Your task to perform on an android device: install app "Adobe Express: Graphic Design" Image 0: 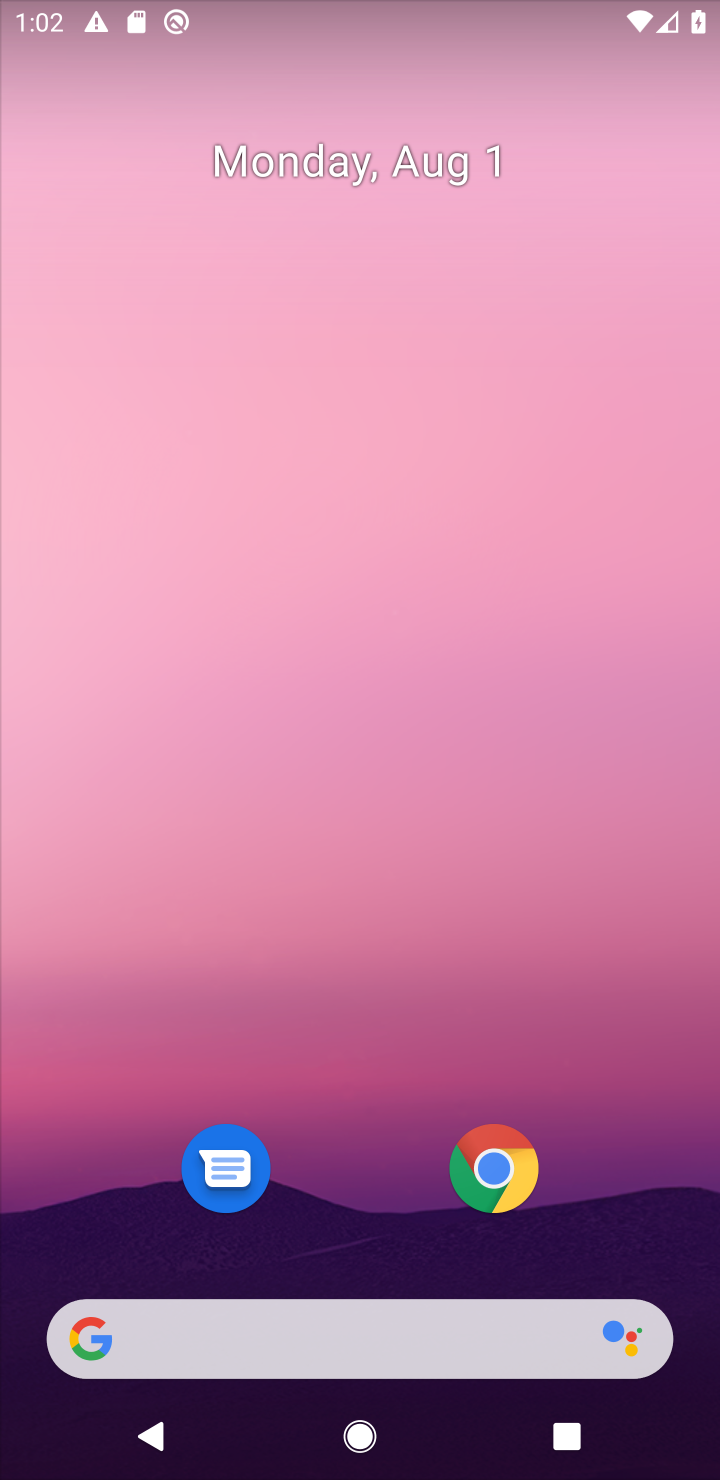
Step 0: drag from (376, 1225) to (259, 201)
Your task to perform on an android device: install app "Adobe Express: Graphic Design" Image 1: 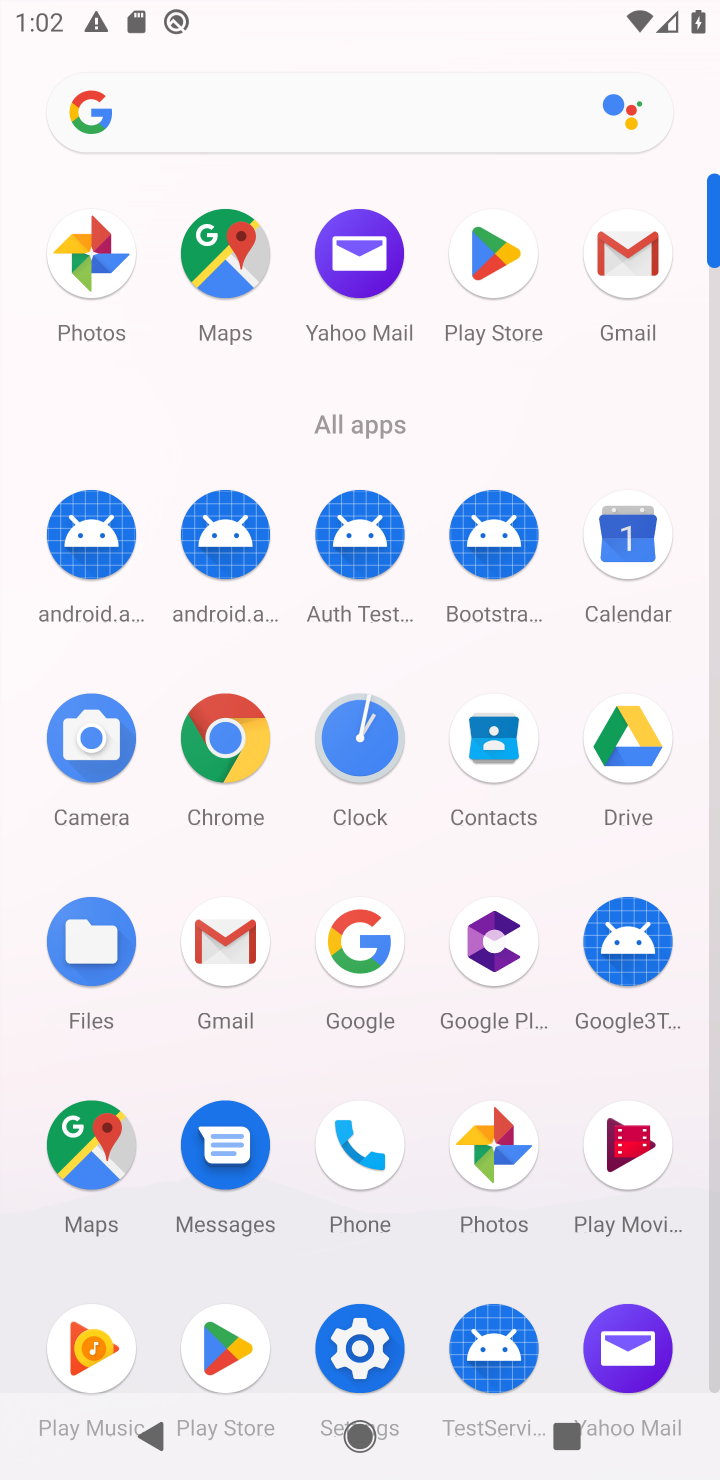
Step 1: click (508, 275)
Your task to perform on an android device: install app "Adobe Express: Graphic Design" Image 2: 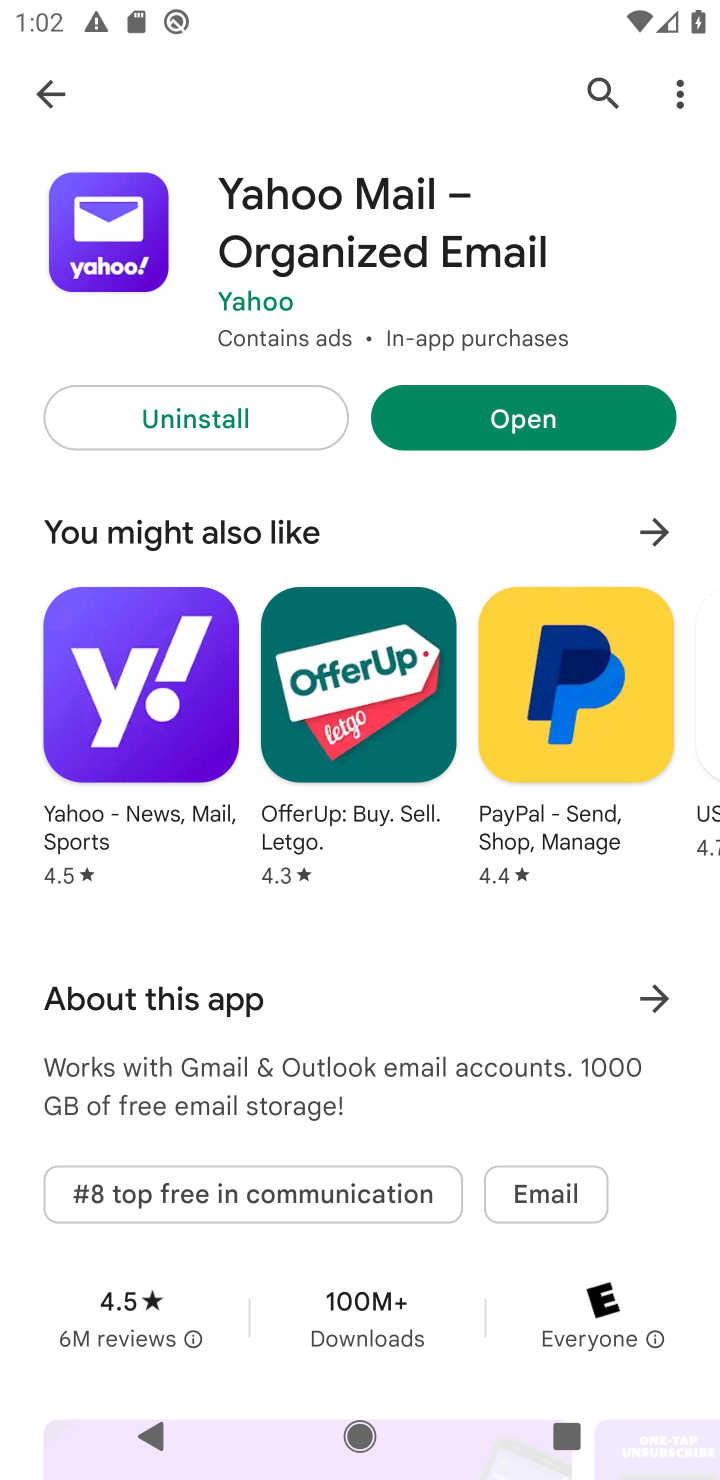
Step 2: click (597, 76)
Your task to perform on an android device: install app "Adobe Express: Graphic Design" Image 3: 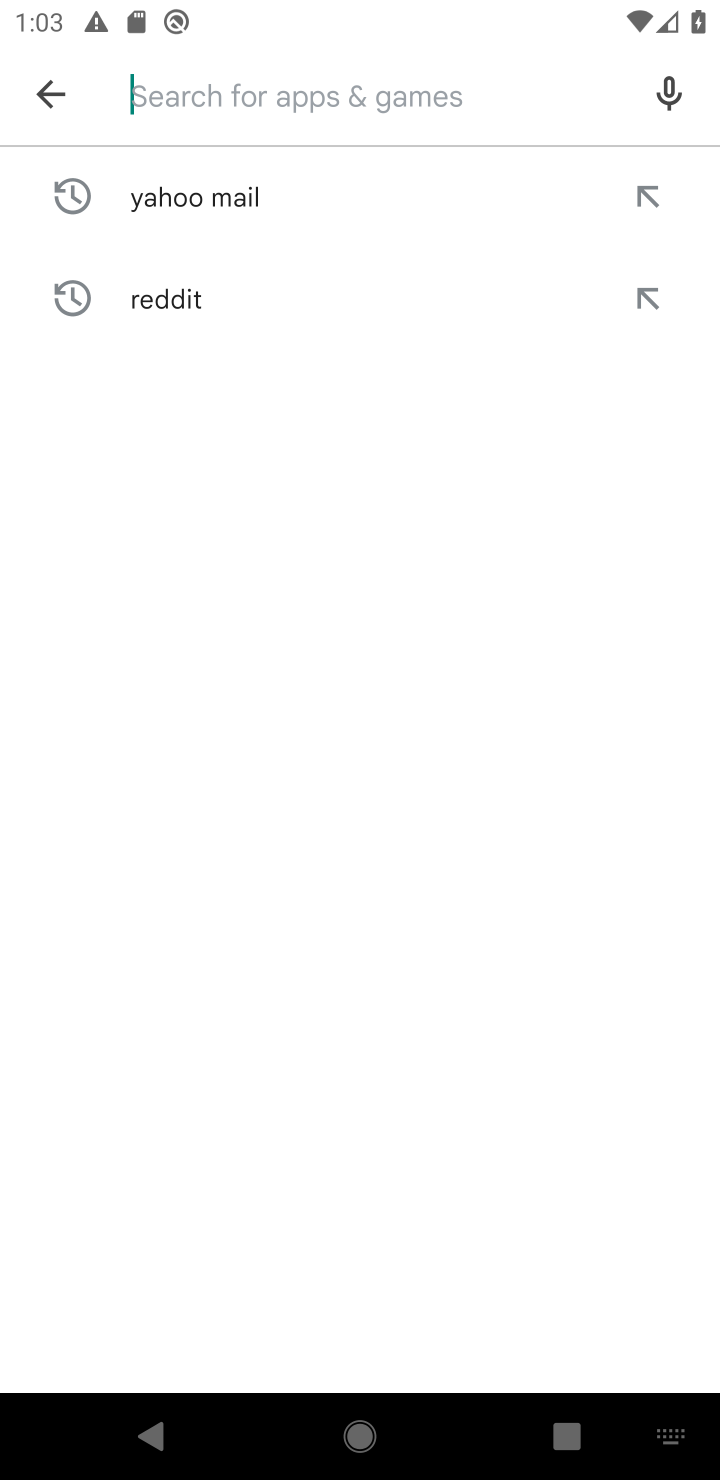
Step 3: type "adobe express: graphic design"
Your task to perform on an android device: install app "Adobe Express: Graphic Design" Image 4: 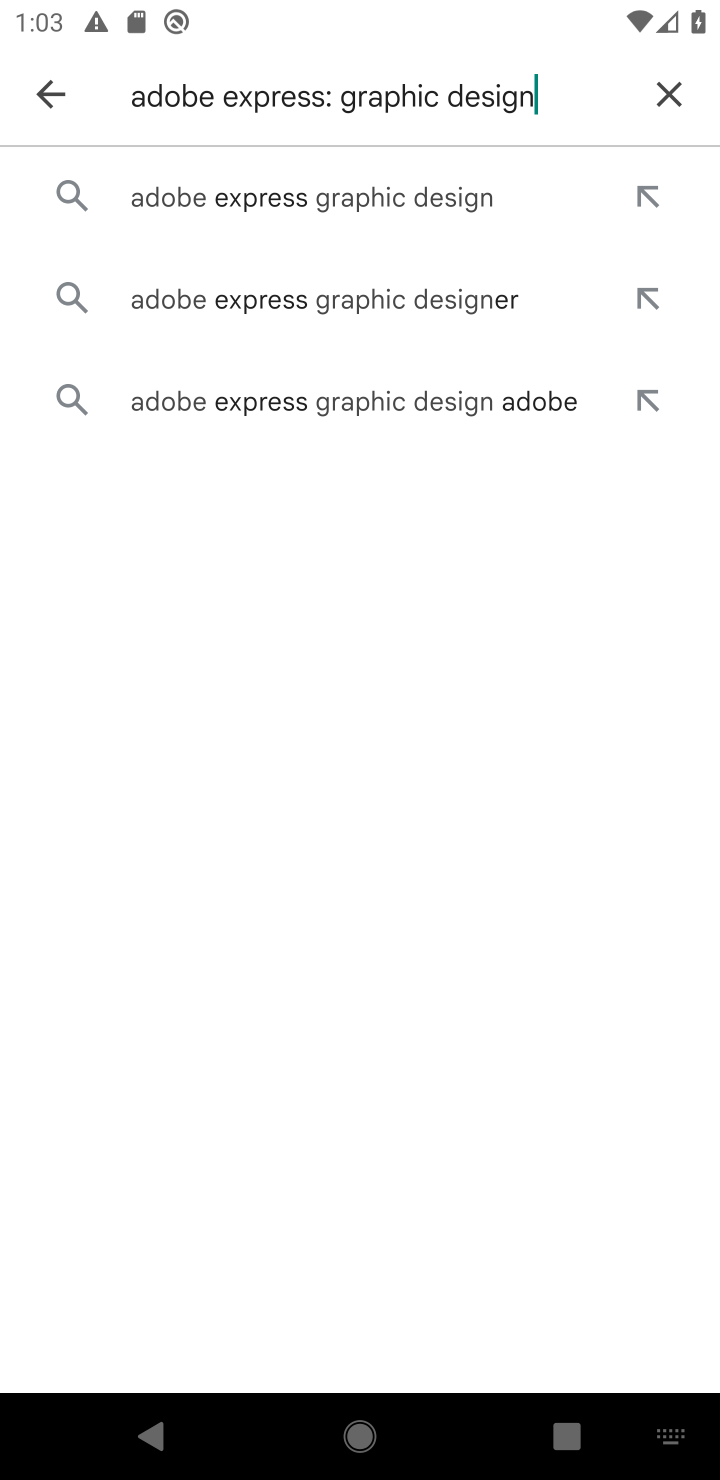
Step 4: click (365, 197)
Your task to perform on an android device: install app "Adobe Express: Graphic Design" Image 5: 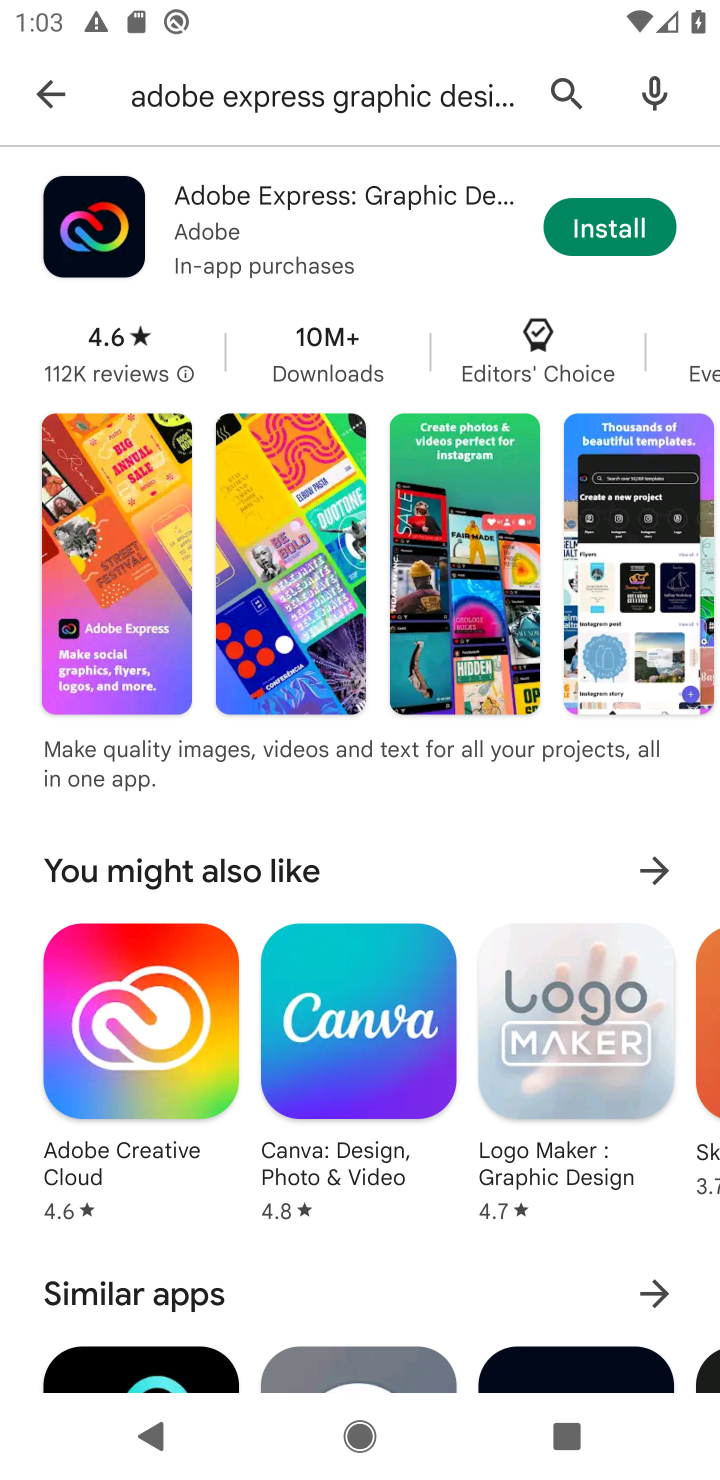
Step 5: click (352, 196)
Your task to perform on an android device: install app "Adobe Express: Graphic Design" Image 6: 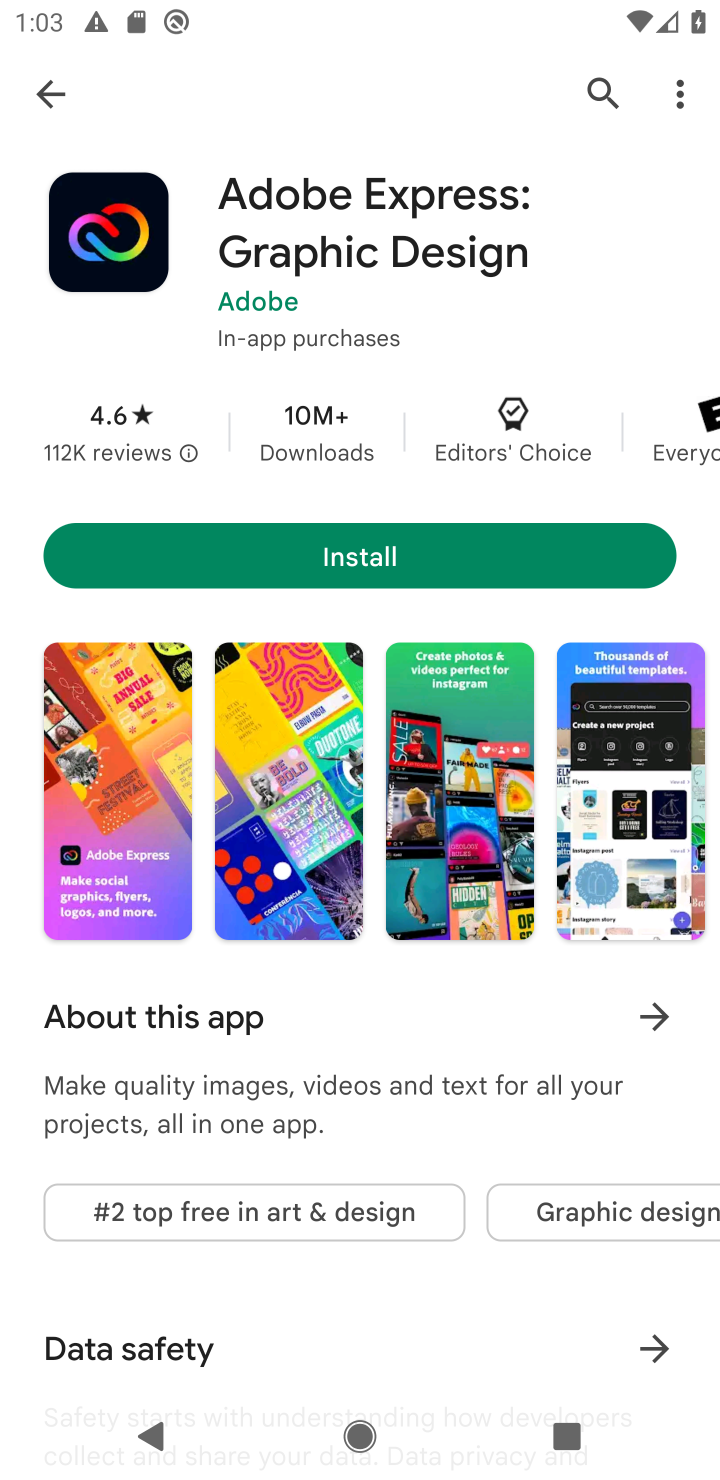
Step 6: click (336, 557)
Your task to perform on an android device: install app "Adobe Express: Graphic Design" Image 7: 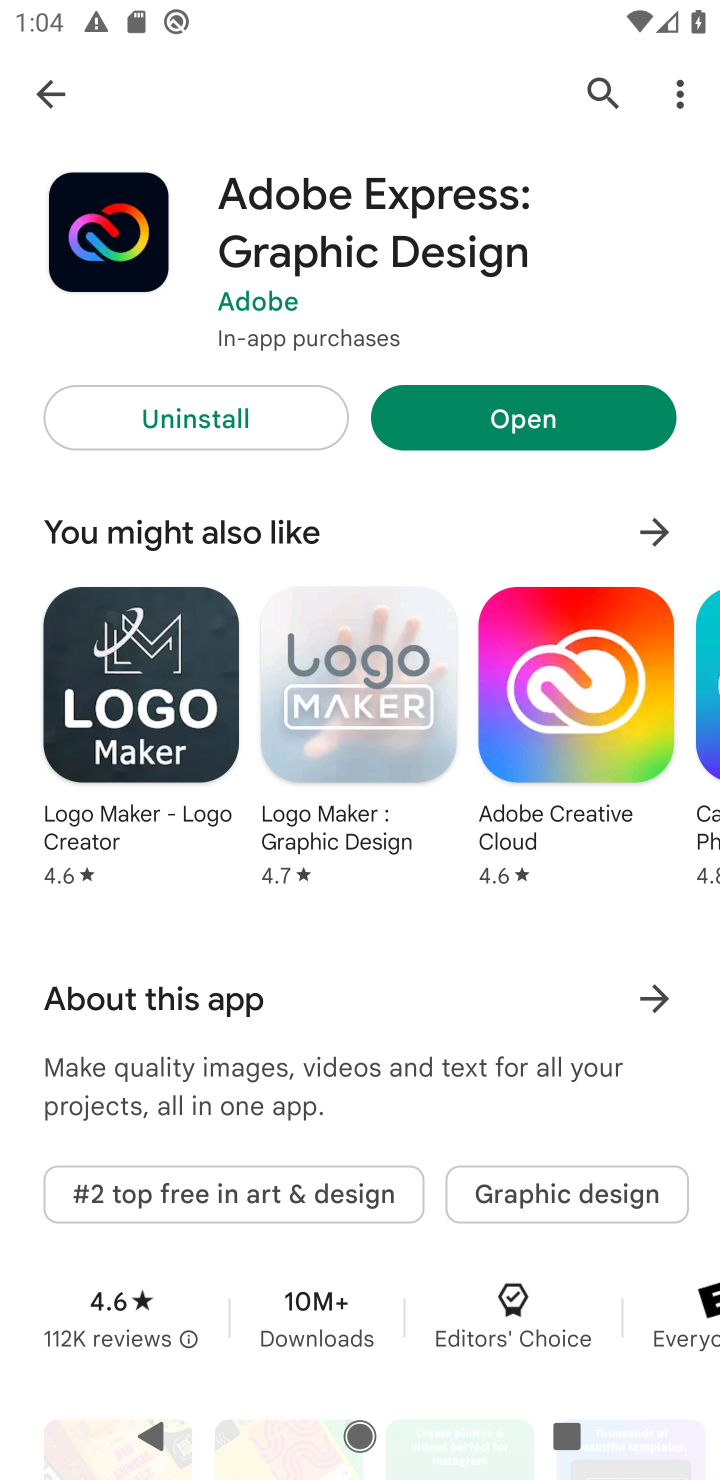
Step 7: task complete